Your task to perform on an android device: Open the web browser Image 0: 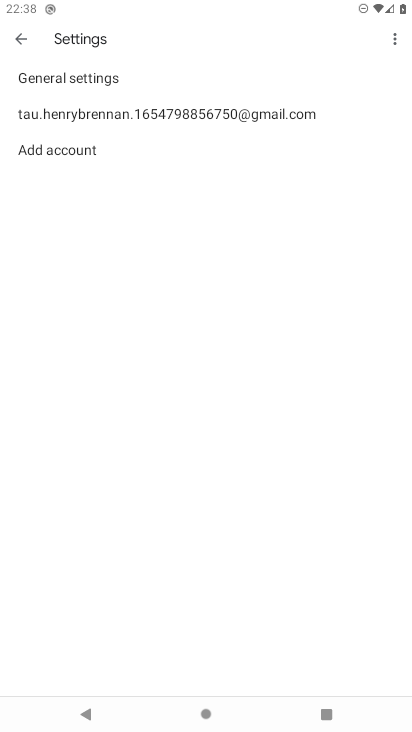
Step 0: press home button
Your task to perform on an android device: Open the web browser Image 1: 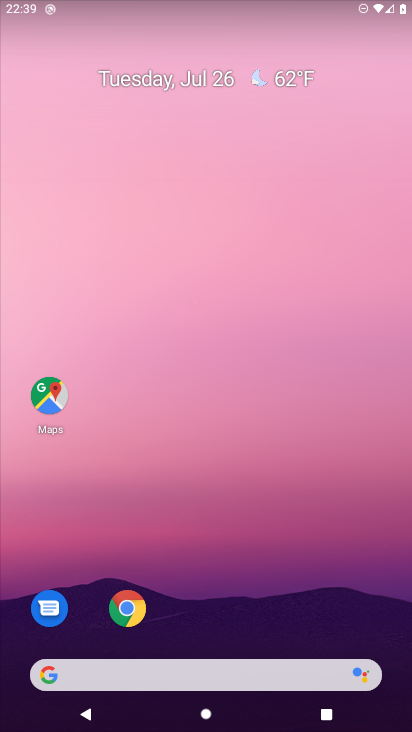
Step 1: task complete